Your task to perform on an android device: Search for sushi restaurants on Maps Image 0: 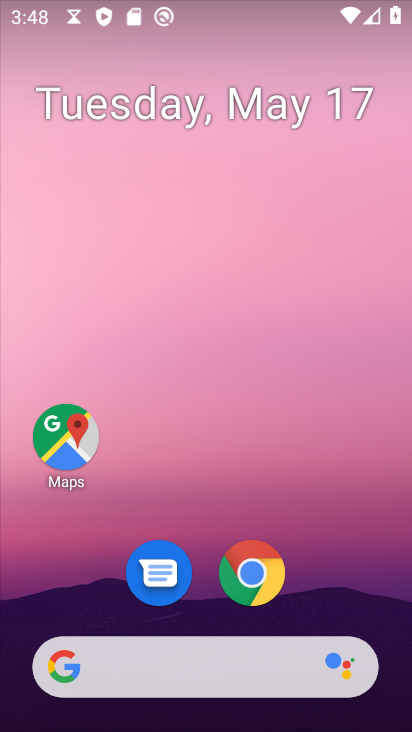
Step 0: click (86, 427)
Your task to perform on an android device: Search for sushi restaurants on Maps Image 1: 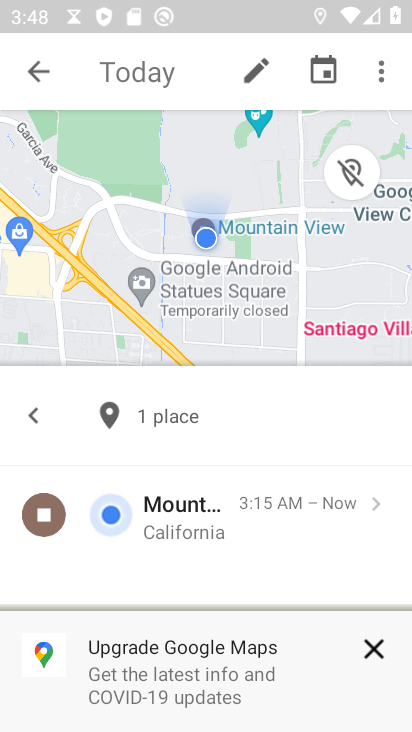
Step 1: click (35, 73)
Your task to perform on an android device: Search for sushi restaurants on Maps Image 2: 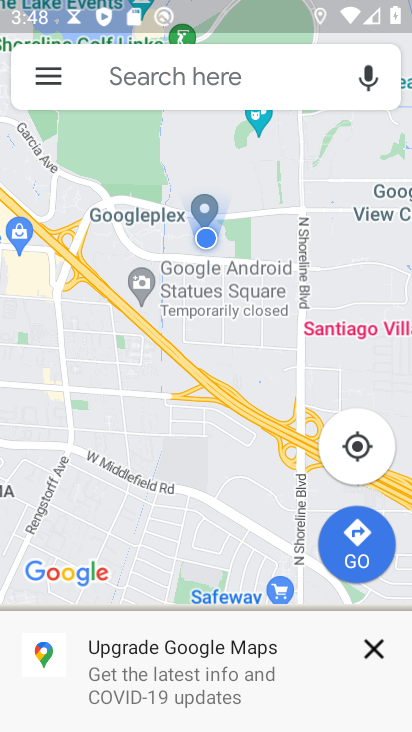
Step 2: click (152, 74)
Your task to perform on an android device: Search for sushi restaurants on Maps Image 3: 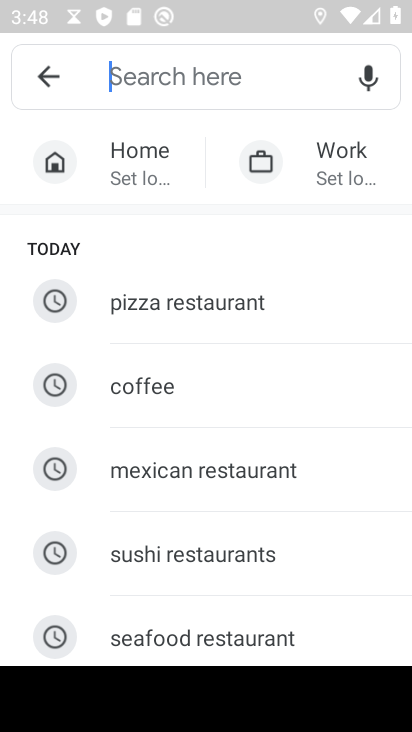
Step 3: click (235, 544)
Your task to perform on an android device: Search for sushi restaurants on Maps Image 4: 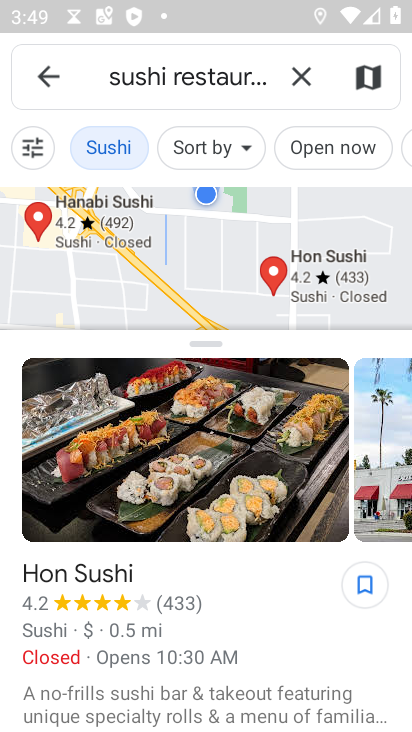
Step 4: task complete